Your task to perform on an android device: check out phone information Image 0: 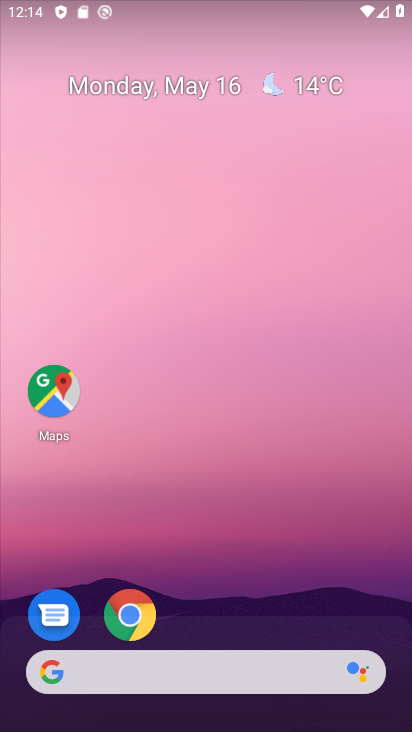
Step 0: drag from (354, 586) to (354, 130)
Your task to perform on an android device: check out phone information Image 1: 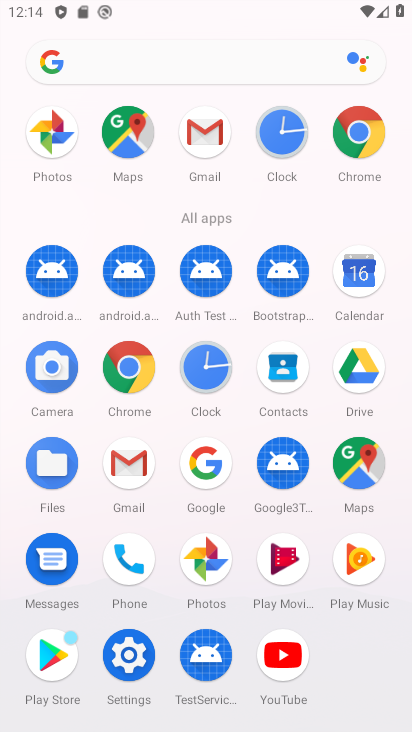
Step 1: click (130, 662)
Your task to perform on an android device: check out phone information Image 2: 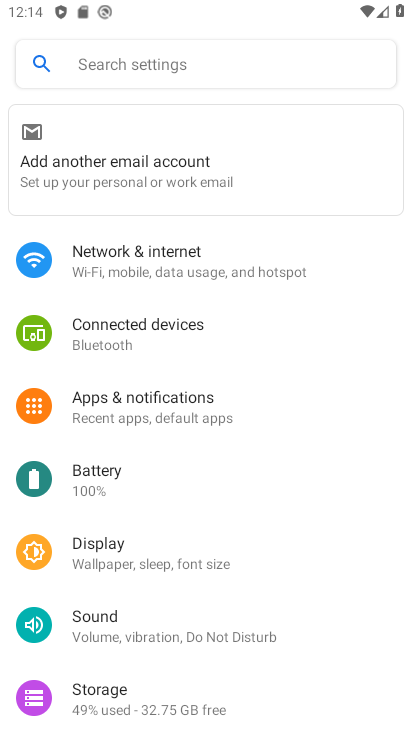
Step 2: task complete